Your task to perform on an android device: delete browsing data in the chrome app Image 0: 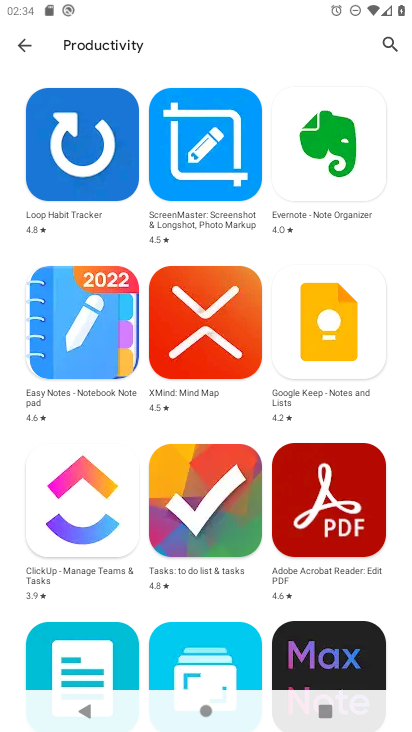
Step 0: press home button
Your task to perform on an android device: delete browsing data in the chrome app Image 1: 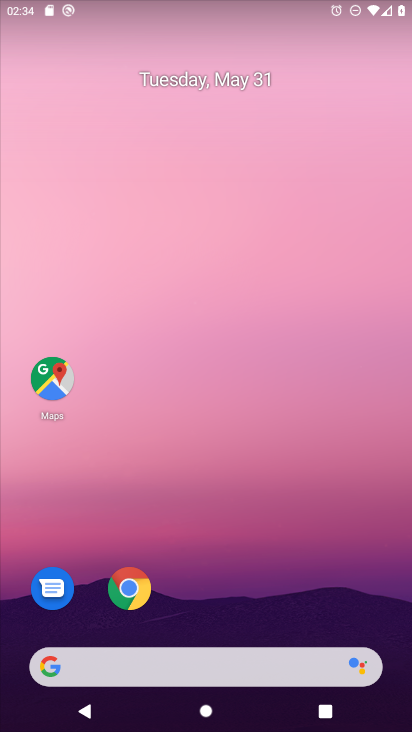
Step 1: drag from (132, 585) to (111, 40)
Your task to perform on an android device: delete browsing data in the chrome app Image 2: 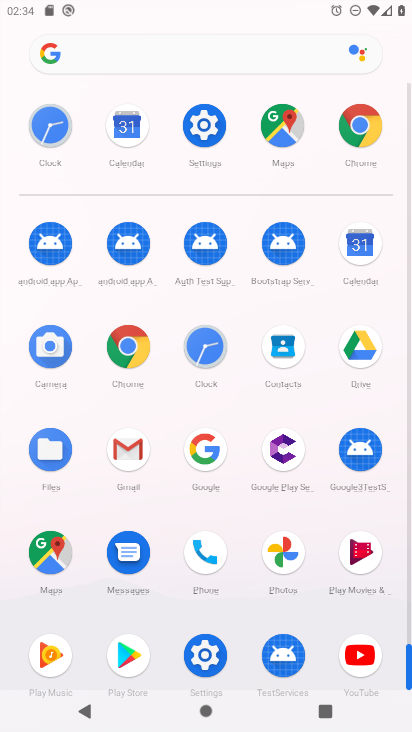
Step 2: click (137, 356)
Your task to perform on an android device: delete browsing data in the chrome app Image 3: 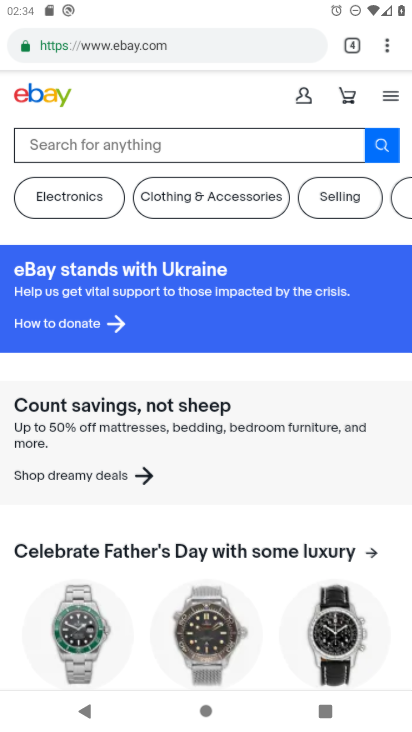
Step 3: drag from (387, 39) to (237, 549)
Your task to perform on an android device: delete browsing data in the chrome app Image 4: 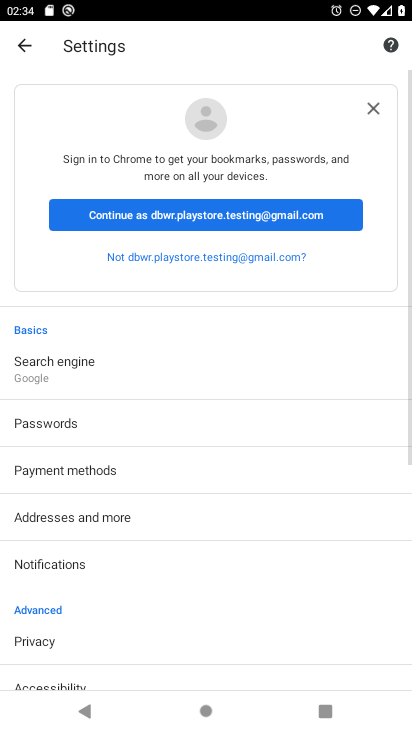
Step 4: click (99, 653)
Your task to perform on an android device: delete browsing data in the chrome app Image 5: 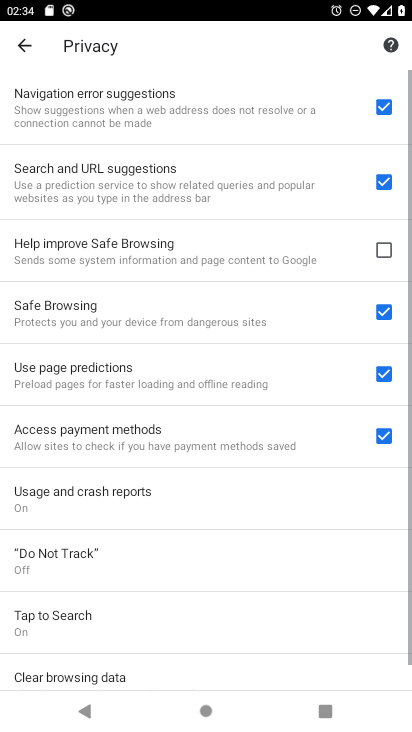
Step 5: drag from (171, 550) to (213, 70)
Your task to perform on an android device: delete browsing data in the chrome app Image 6: 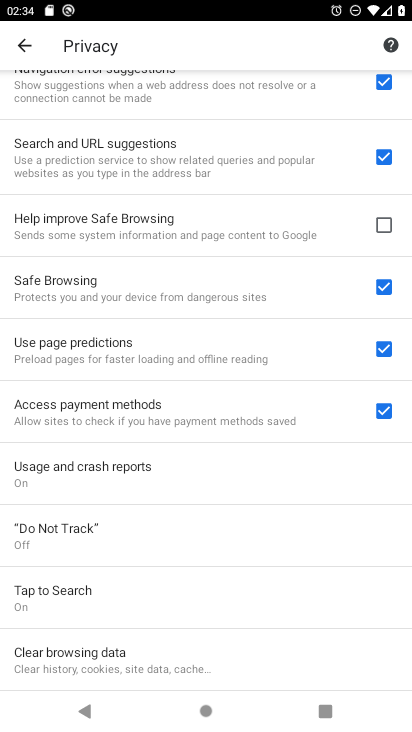
Step 6: click (227, 676)
Your task to perform on an android device: delete browsing data in the chrome app Image 7: 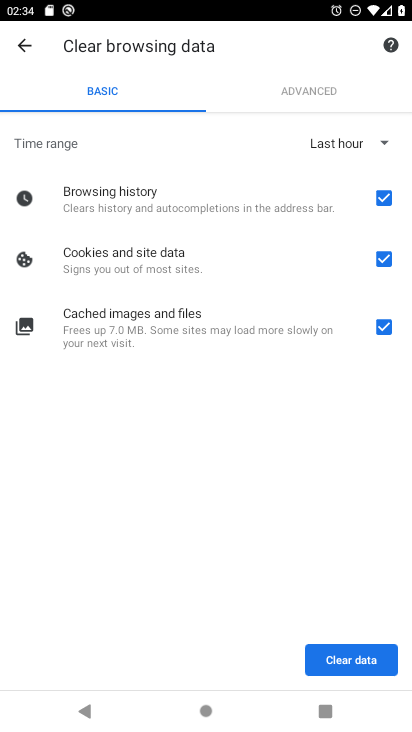
Step 7: click (355, 672)
Your task to perform on an android device: delete browsing data in the chrome app Image 8: 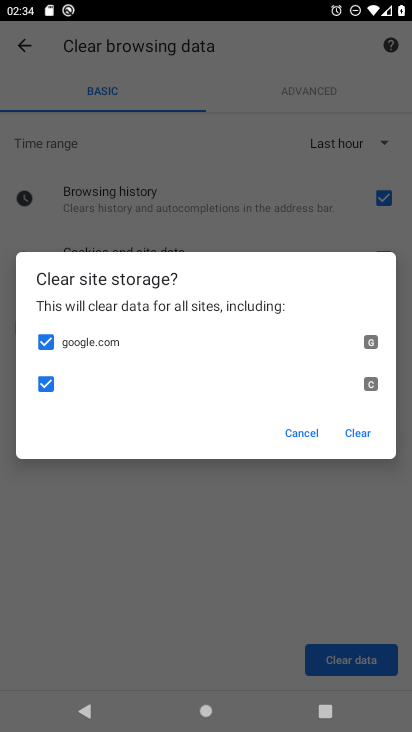
Step 8: click (355, 432)
Your task to perform on an android device: delete browsing data in the chrome app Image 9: 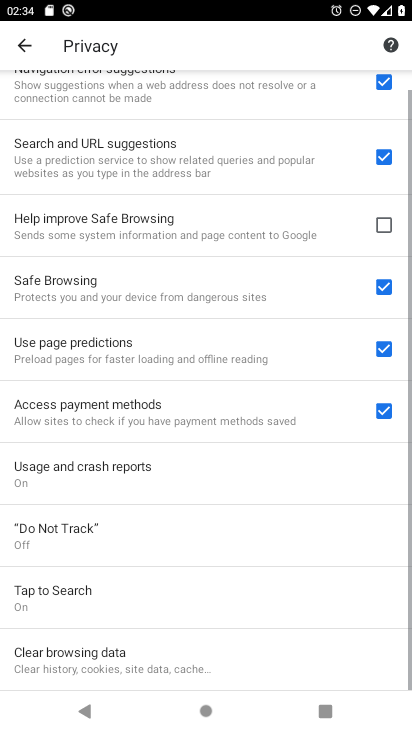
Step 9: task complete